Your task to perform on an android device: choose inbox layout in the gmail app Image 0: 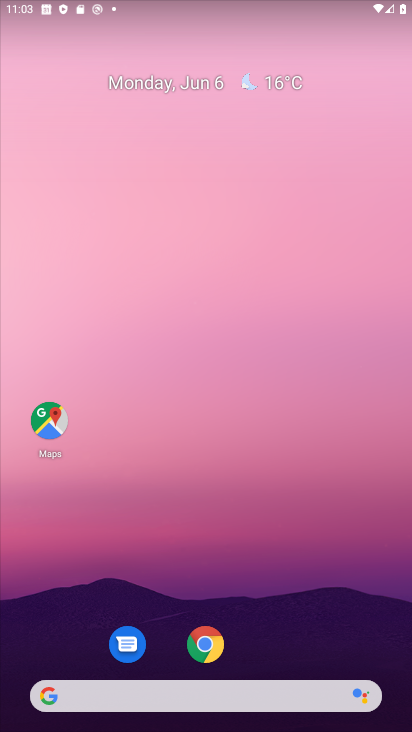
Step 0: drag from (256, 639) to (277, 101)
Your task to perform on an android device: choose inbox layout in the gmail app Image 1: 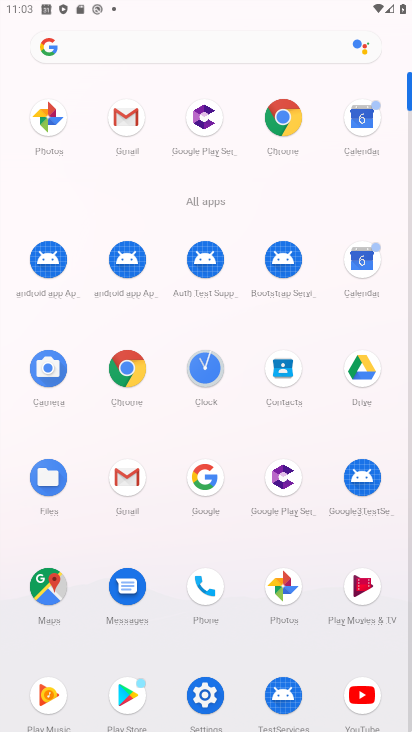
Step 1: click (129, 114)
Your task to perform on an android device: choose inbox layout in the gmail app Image 2: 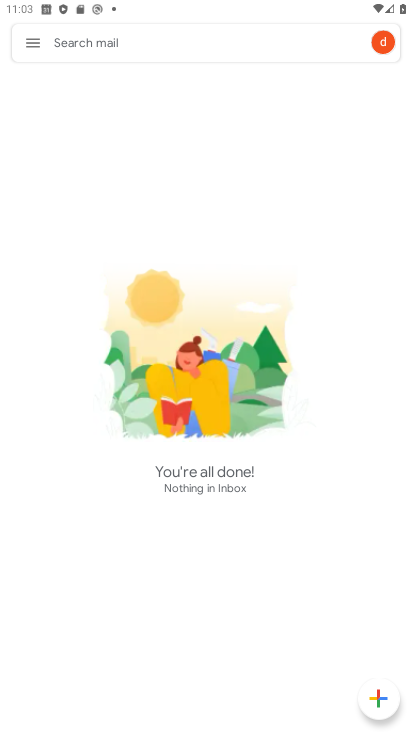
Step 2: click (34, 44)
Your task to perform on an android device: choose inbox layout in the gmail app Image 3: 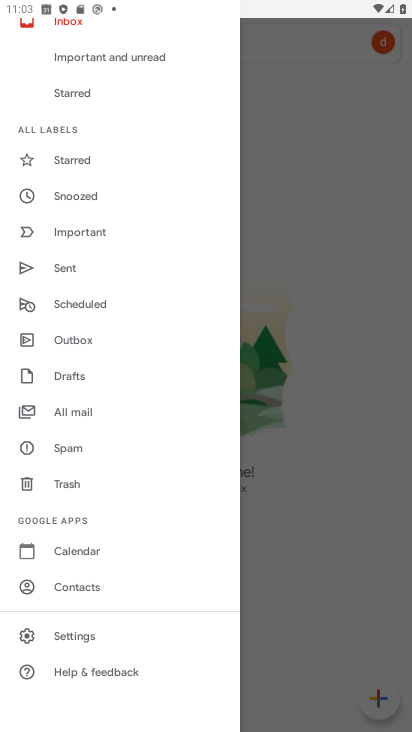
Step 3: click (108, 639)
Your task to perform on an android device: choose inbox layout in the gmail app Image 4: 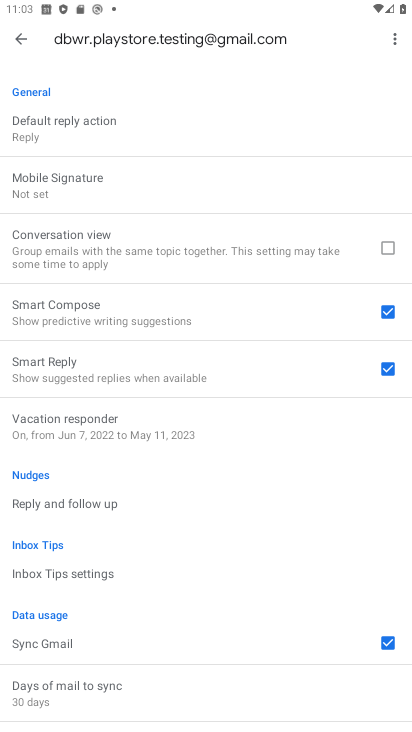
Step 4: drag from (127, 137) to (122, 649)
Your task to perform on an android device: choose inbox layout in the gmail app Image 5: 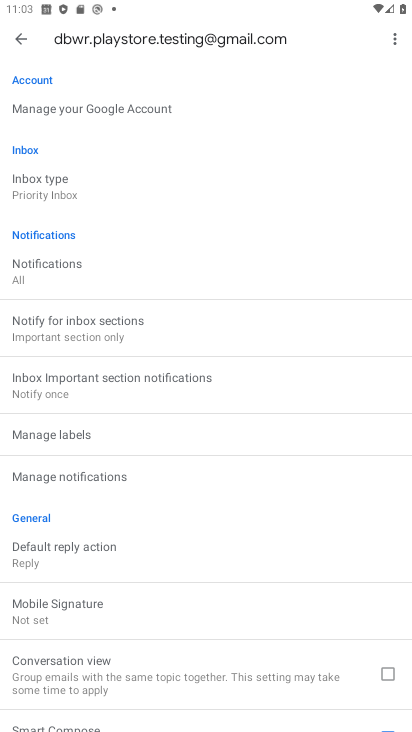
Step 5: click (104, 185)
Your task to perform on an android device: choose inbox layout in the gmail app Image 6: 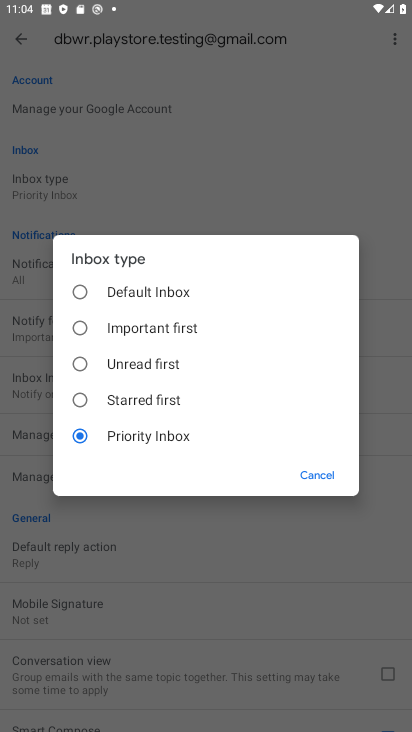
Step 6: click (130, 297)
Your task to perform on an android device: choose inbox layout in the gmail app Image 7: 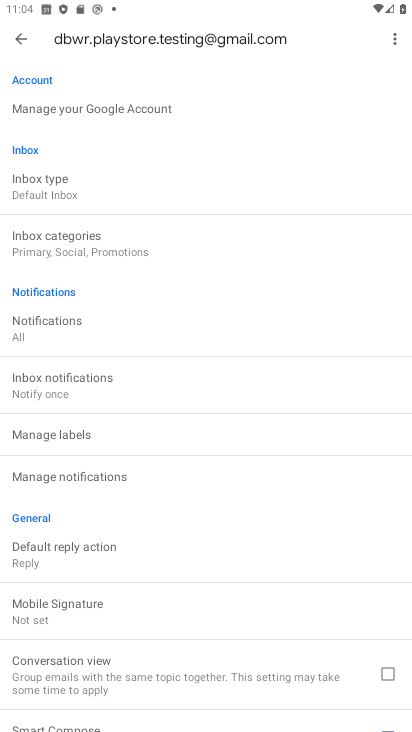
Step 7: task complete